Your task to perform on an android device: Go to Maps Image 0: 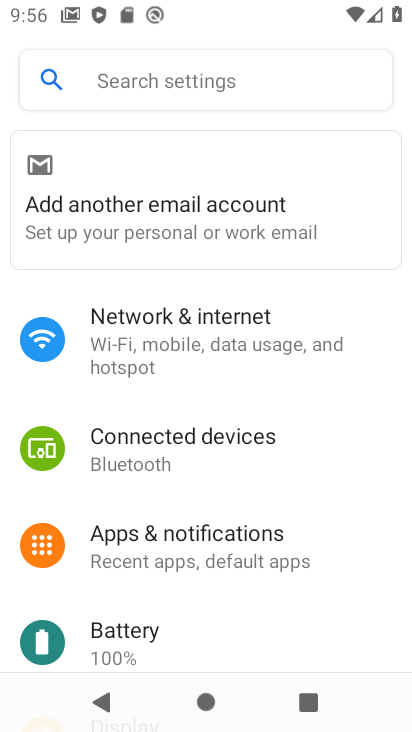
Step 0: press home button
Your task to perform on an android device: Go to Maps Image 1: 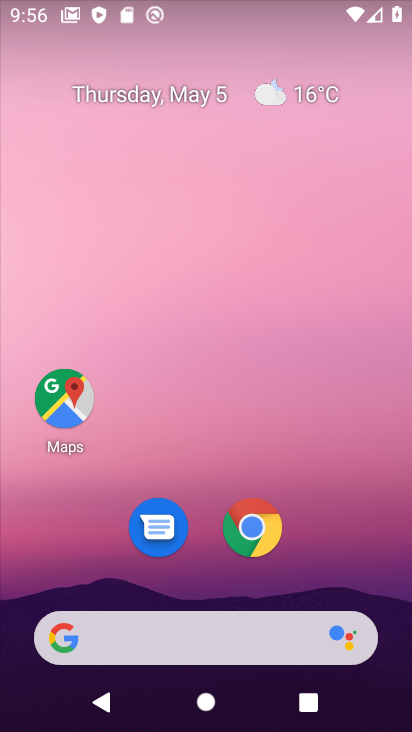
Step 1: click (53, 400)
Your task to perform on an android device: Go to Maps Image 2: 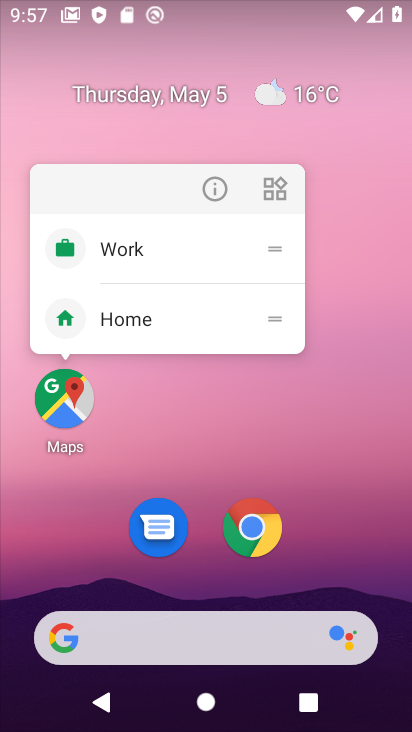
Step 2: click (65, 405)
Your task to perform on an android device: Go to Maps Image 3: 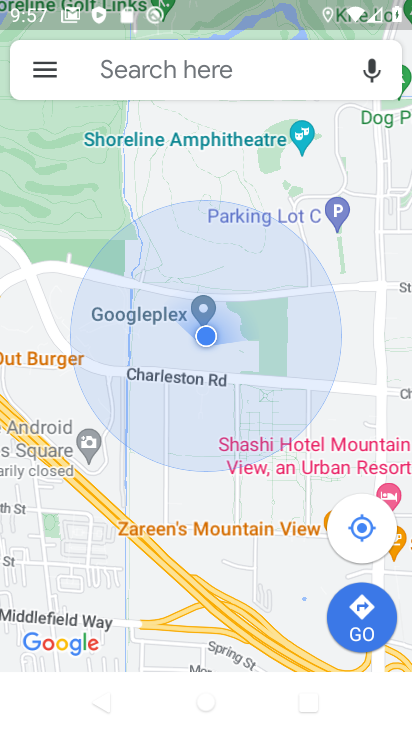
Step 3: task complete